Your task to perform on an android device: turn on priority inbox in the gmail app Image 0: 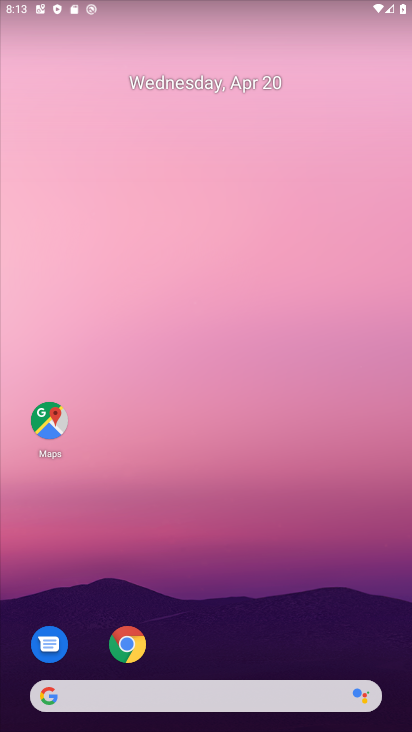
Step 0: drag from (339, 628) to (240, 103)
Your task to perform on an android device: turn on priority inbox in the gmail app Image 1: 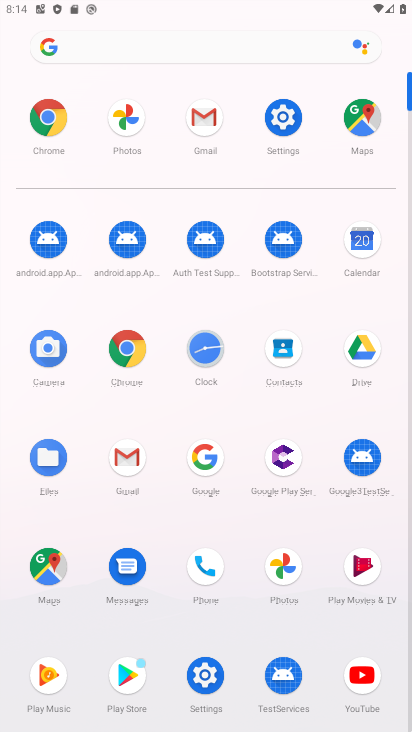
Step 1: click (134, 473)
Your task to perform on an android device: turn on priority inbox in the gmail app Image 2: 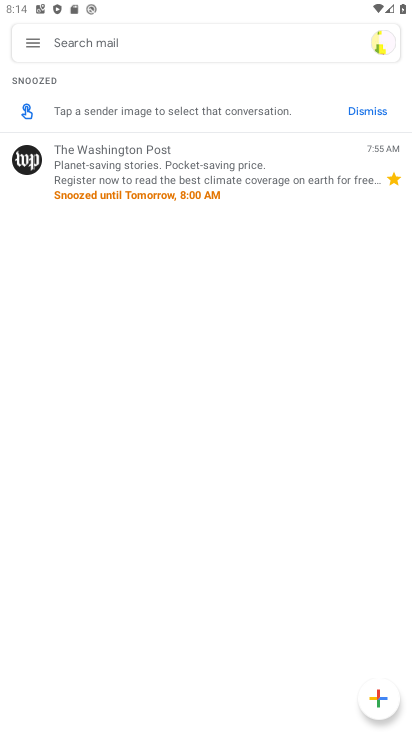
Step 2: click (29, 47)
Your task to perform on an android device: turn on priority inbox in the gmail app Image 3: 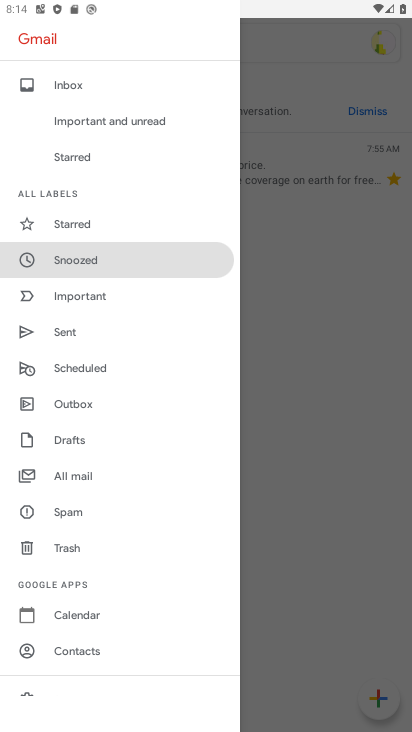
Step 3: drag from (93, 635) to (118, 265)
Your task to perform on an android device: turn on priority inbox in the gmail app Image 4: 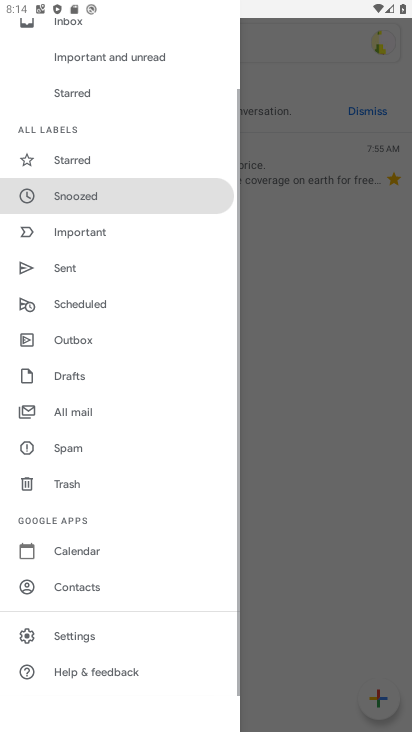
Step 4: click (106, 632)
Your task to perform on an android device: turn on priority inbox in the gmail app Image 5: 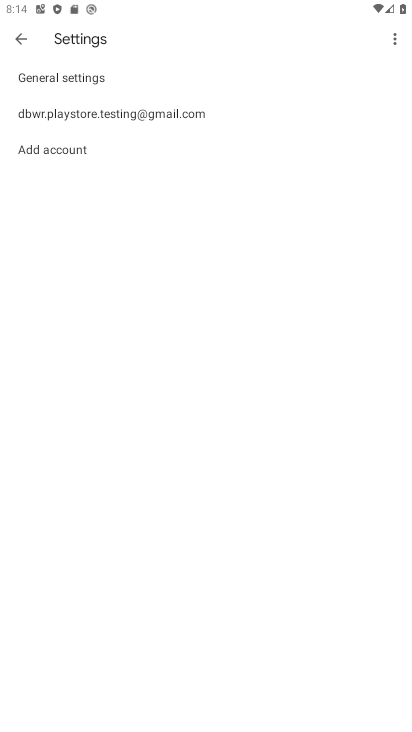
Step 5: click (149, 114)
Your task to perform on an android device: turn on priority inbox in the gmail app Image 6: 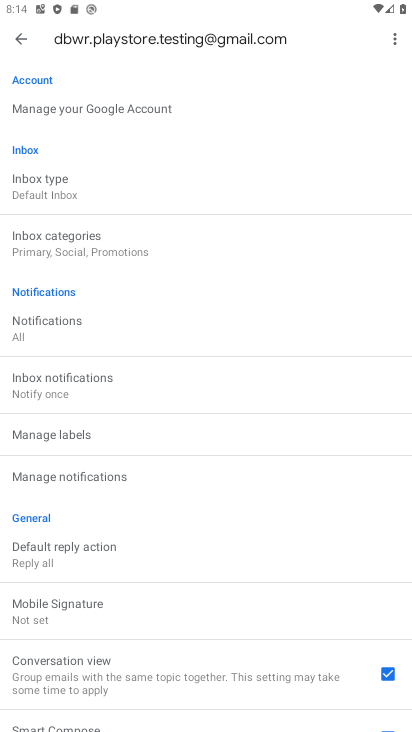
Step 6: click (125, 196)
Your task to perform on an android device: turn on priority inbox in the gmail app Image 7: 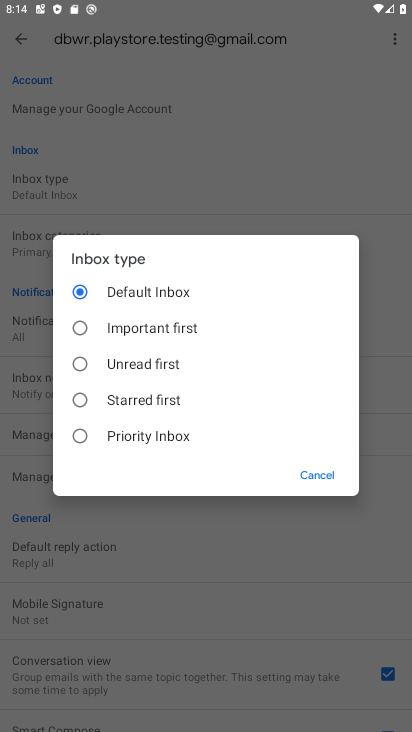
Step 7: click (85, 437)
Your task to perform on an android device: turn on priority inbox in the gmail app Image 8: 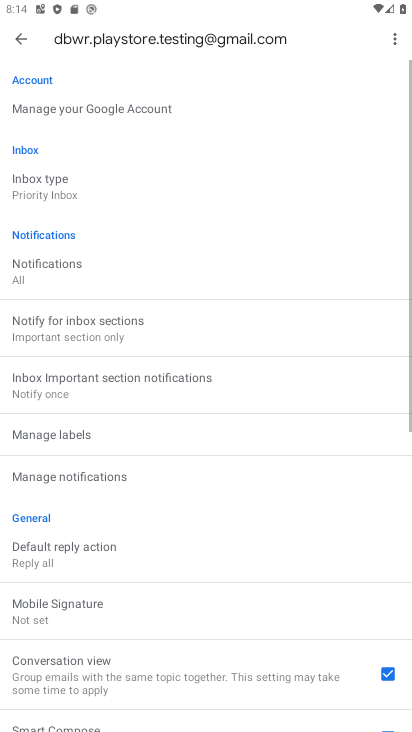
Step 8: task complete